Your task to perform on an android device: toggle airplane mode Image 0: 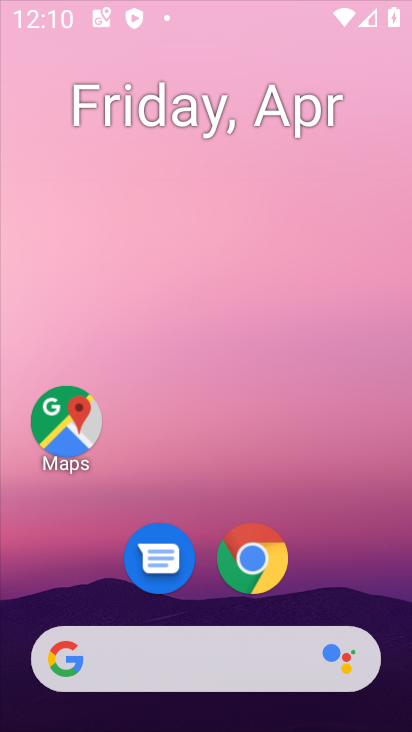
Step 0: drag from (356, 598) to (259, 99)
Your task to perform on an android device: toggle airplane mode Image 1: 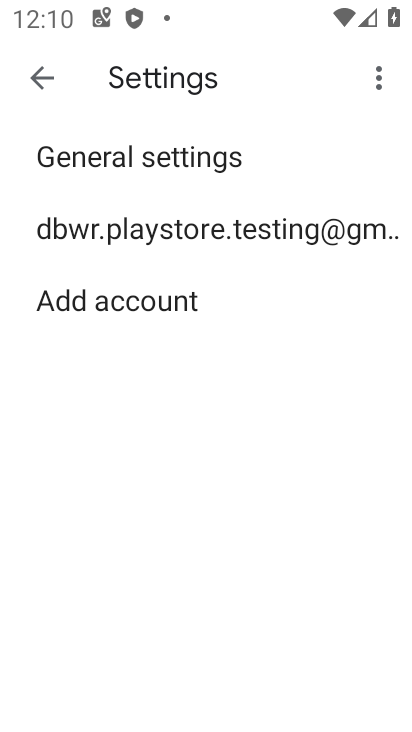
Step 1: press back button
Your task to perform on an android device: toggle airplane mode Image 2: 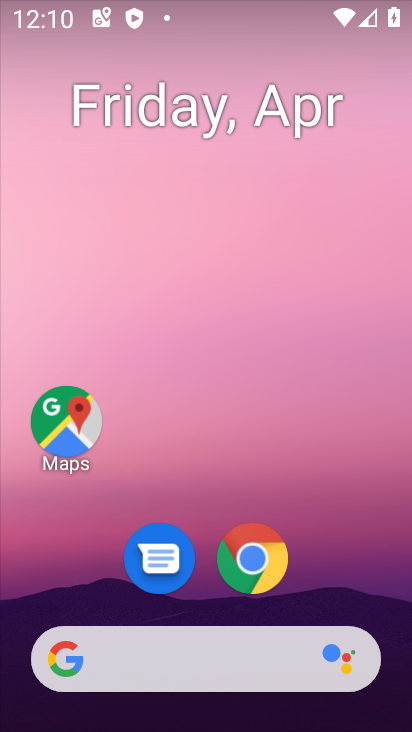
Step 2: drag from (273, 12) to (278, 169)
Your task to perform on an android device: toggle airplane mode Image 3: 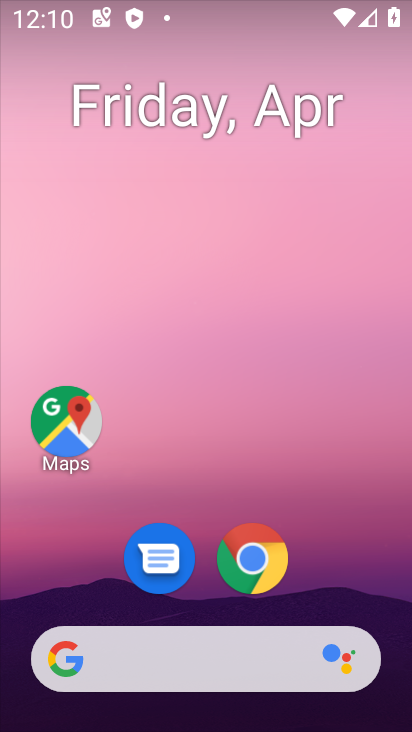
Step 3: drag from (229, 3) to (256, 355)
Your task to perform on an android device: toggle airplane mode Image 4: 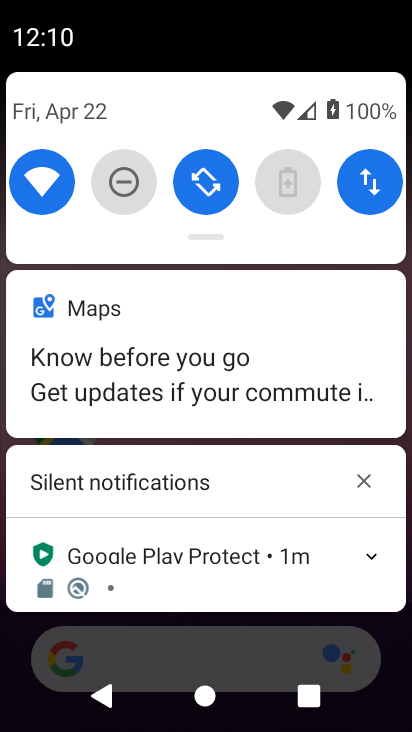
Step 4: drag from (173, 224) to (210, 581)
Your task to perform on an android device: toggle airplane mode Image 5: 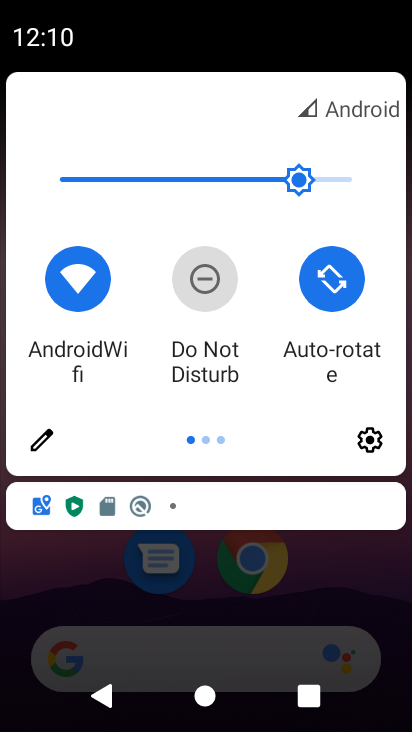
Step 5: drag from (325, 395) to (53, 330)
Your task to perform on an android device: toggle airplane mode Image 6: 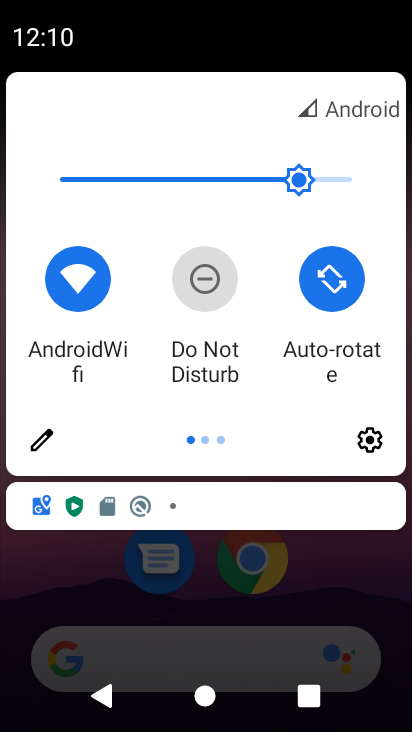
Step 6: drag from (357, 355) to (114, 308)
Your task to perform on an android device: toggle airplane mode Image 7: 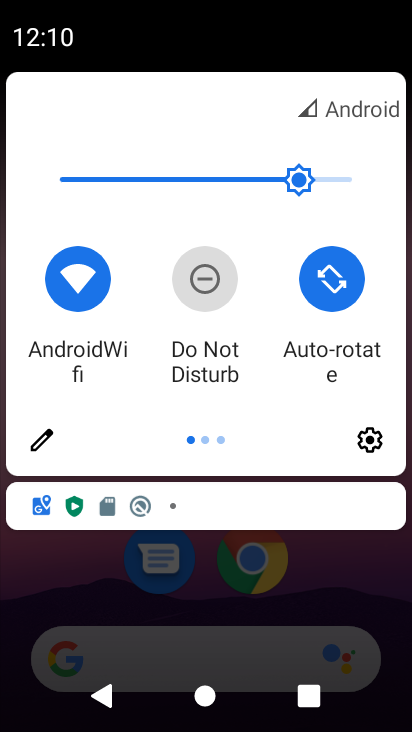
Step 7: drag from (270, 389) to (43, 332)
Your task to perform on an android device: toggle airplane mode Image 8: 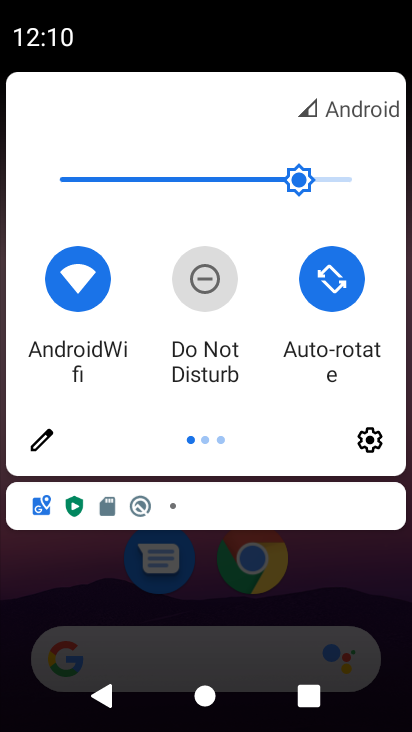
Step 8: drag from (330, 301) to (5, 275)
Your task to perform on an android device: toggle airplane mode Image 9: 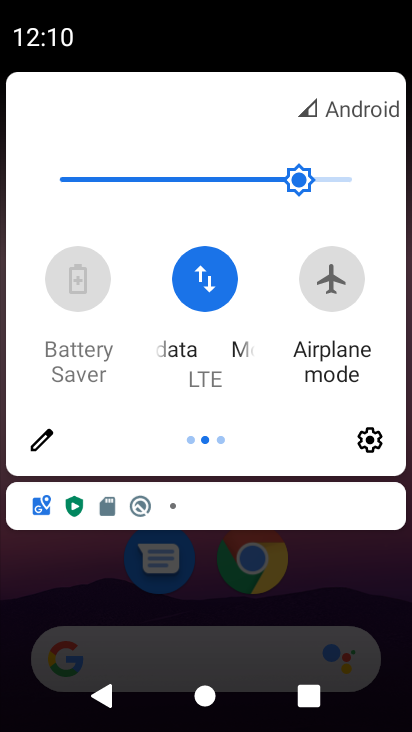
Step 9: click (335, 293)
Your task to perform on an android device: toggle airplane mode Image 10: 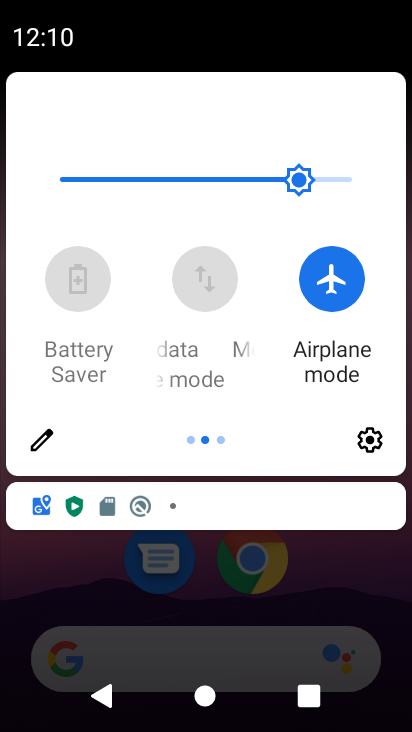
Step 10: task complete